Your task to perform on an android device: open app "WhatsApp Messenger" (install if not already installed) Image 0: 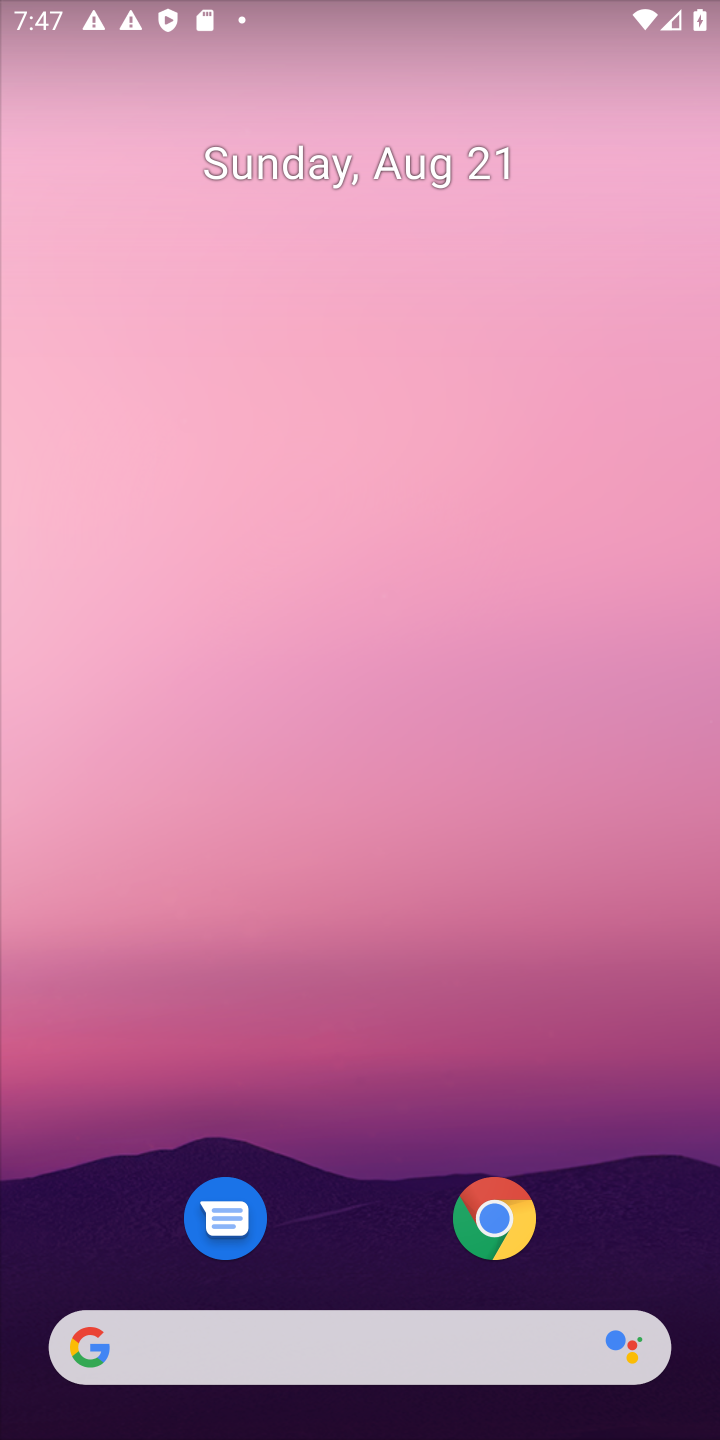
Step 0: drag from (404, 1287) to (370, 364)
Your task to perform on an android device: open app "WhatsApp Messenger" (install if not already installed) Image 1: 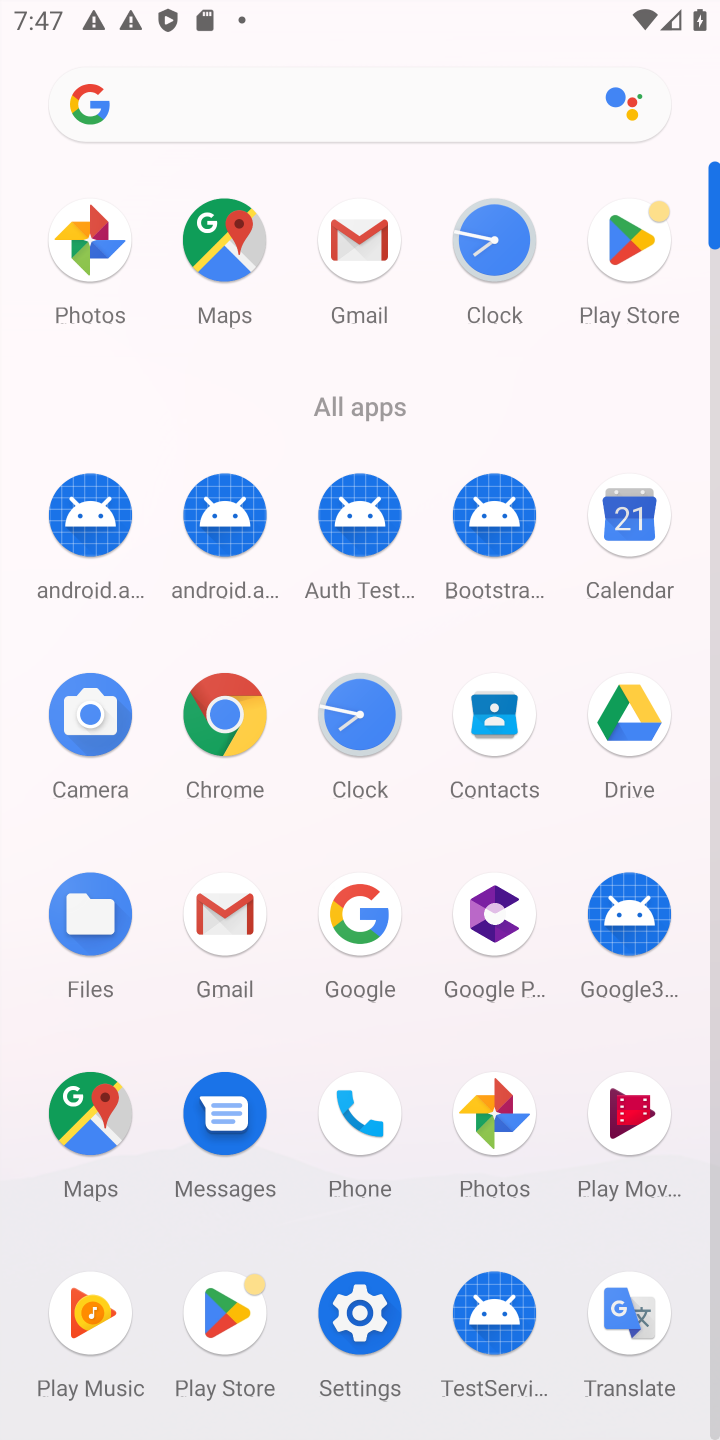
Step 1: click (668, 262)
Your task to perform on an android device: open app "WhatsApp Messenger" (install if not already installed) Image 2: 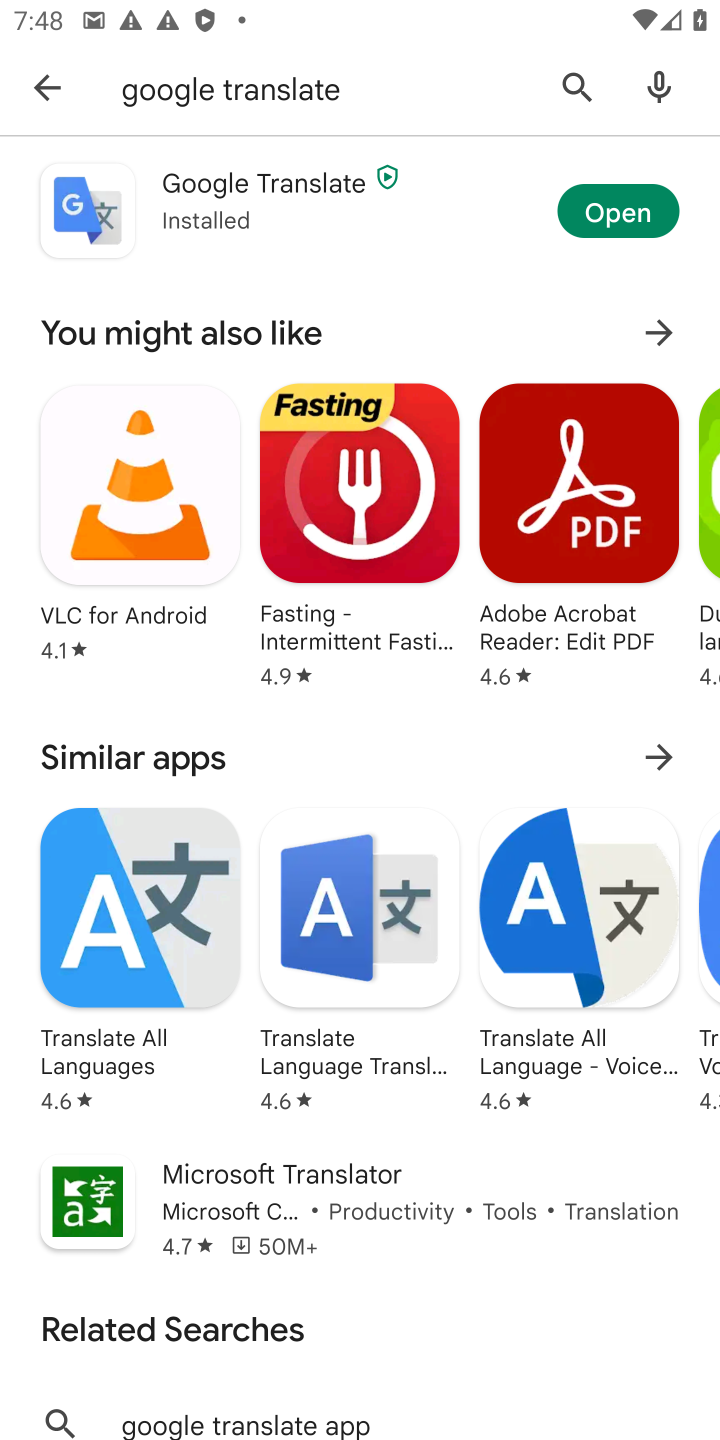
Step 2: click (53, 98)
Your task to perform on an android device: open app "WhatsApp Messenger" (install if not already installed) Image 3: 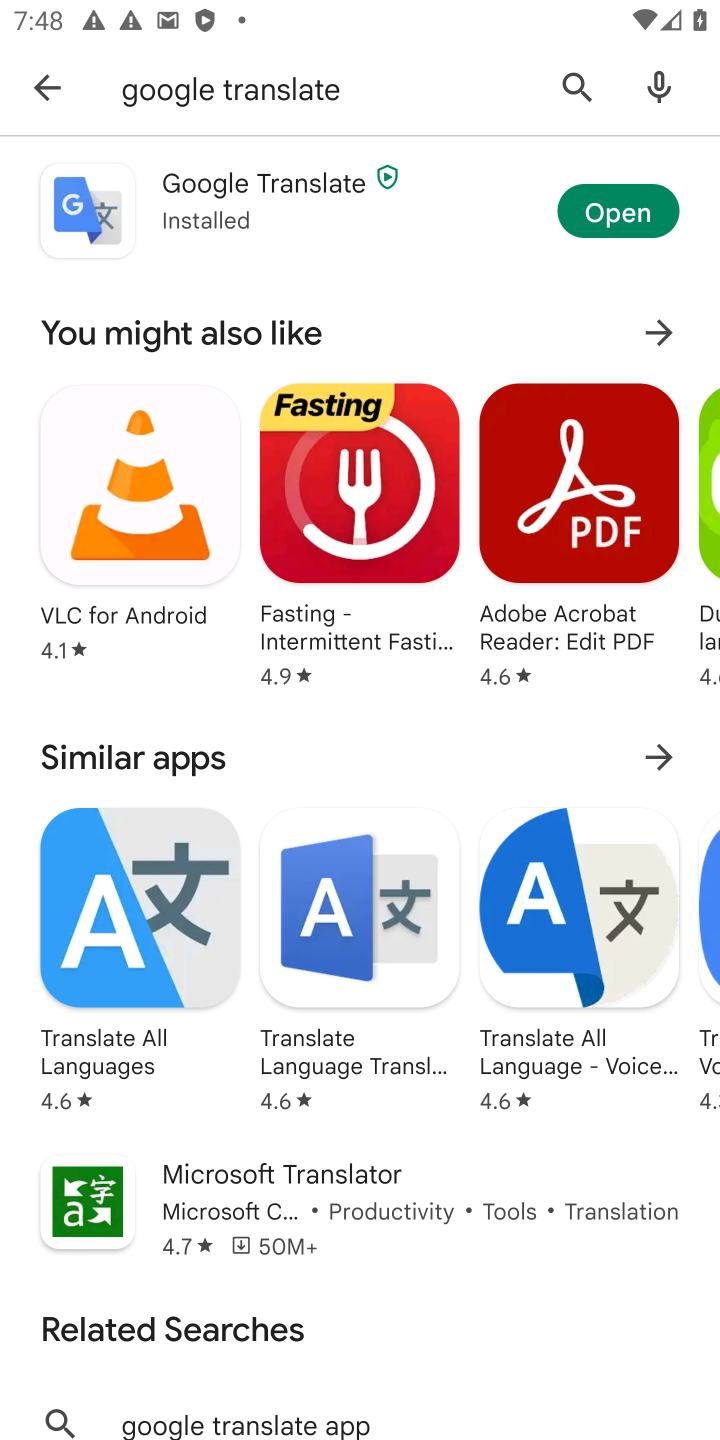
Step 3: click (46, 93)
Your task to perform on an android device: open app "WhatsApp Messenger" (install if not already installed) Image 4: 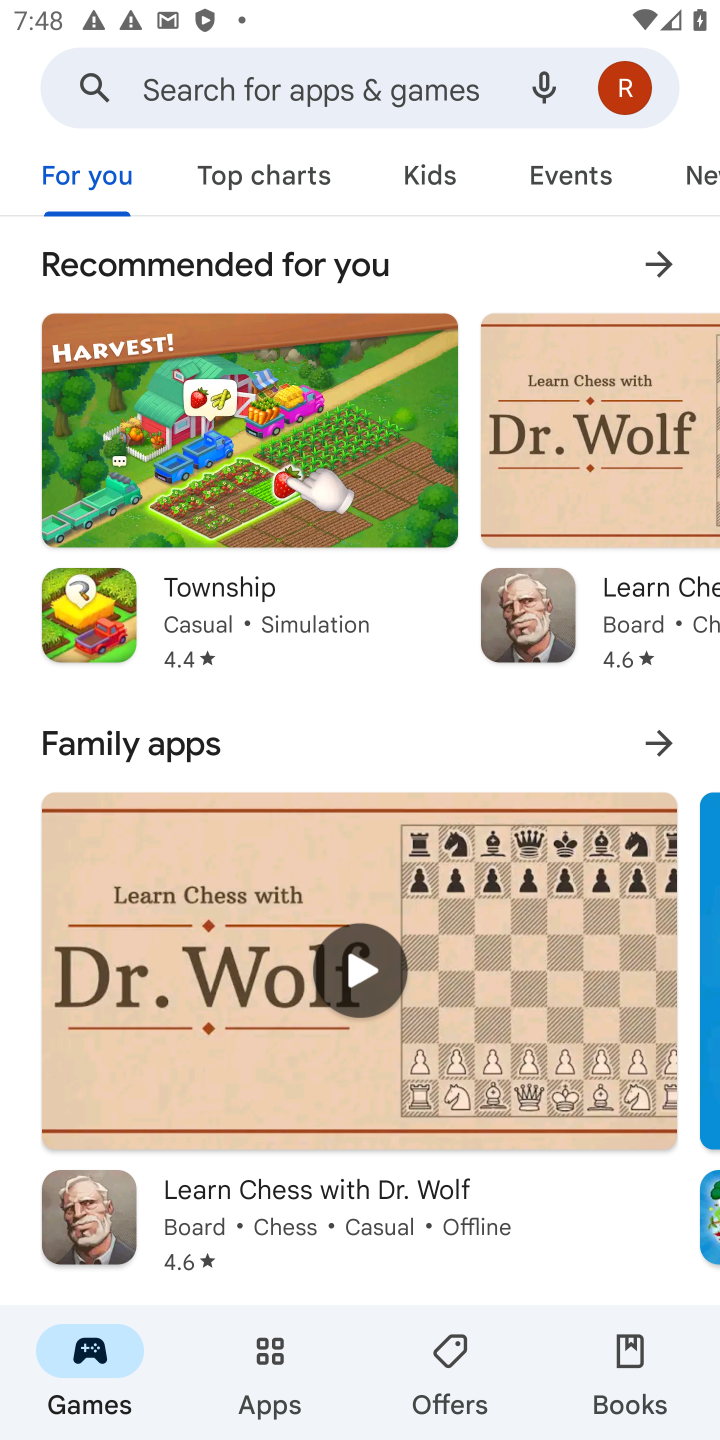
Step 4: click (417, 105)
Your task to perform on an android device: open app "WhatsApp Messenger" (install if not already installed) Image 5: 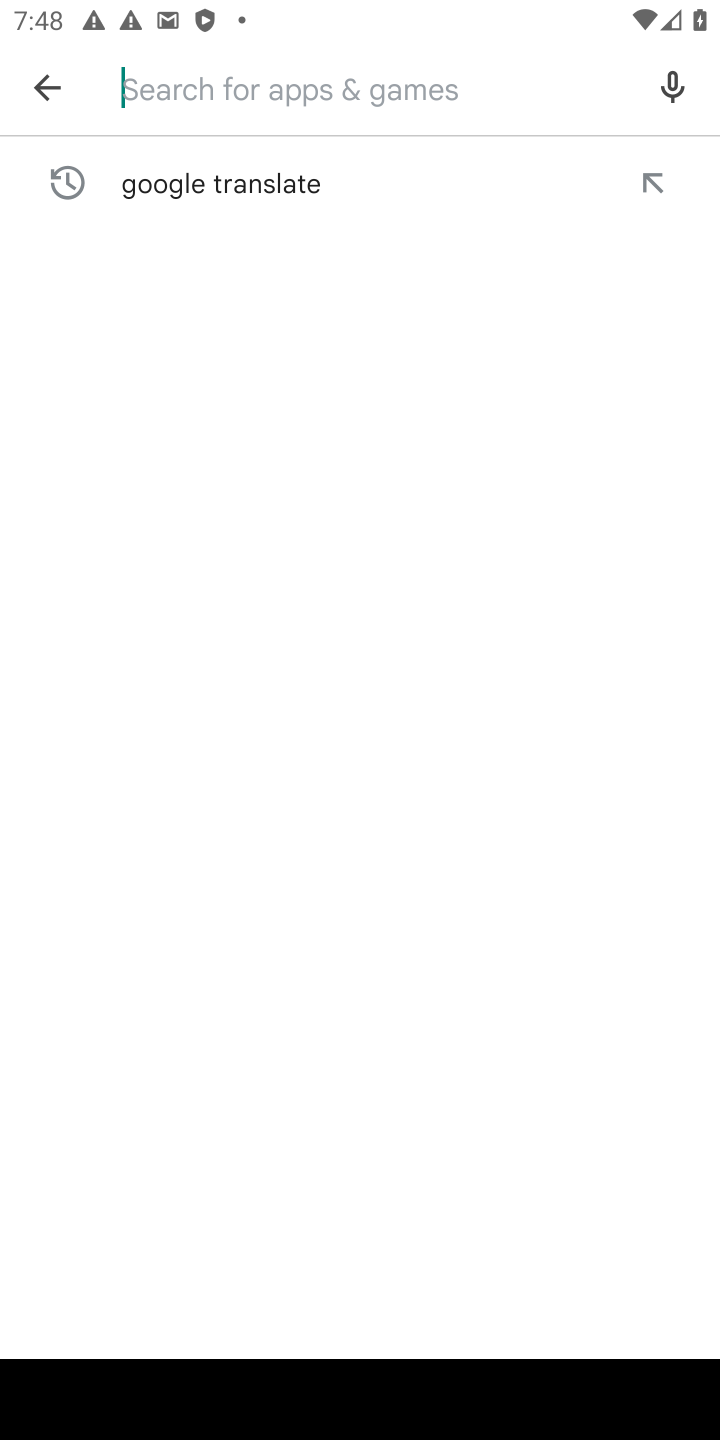
Step 5: type "WhatsApp Messenger"
Your task to perform on an android device: open app "WhatsApp Messenger" (install if not already installed) Image 6: 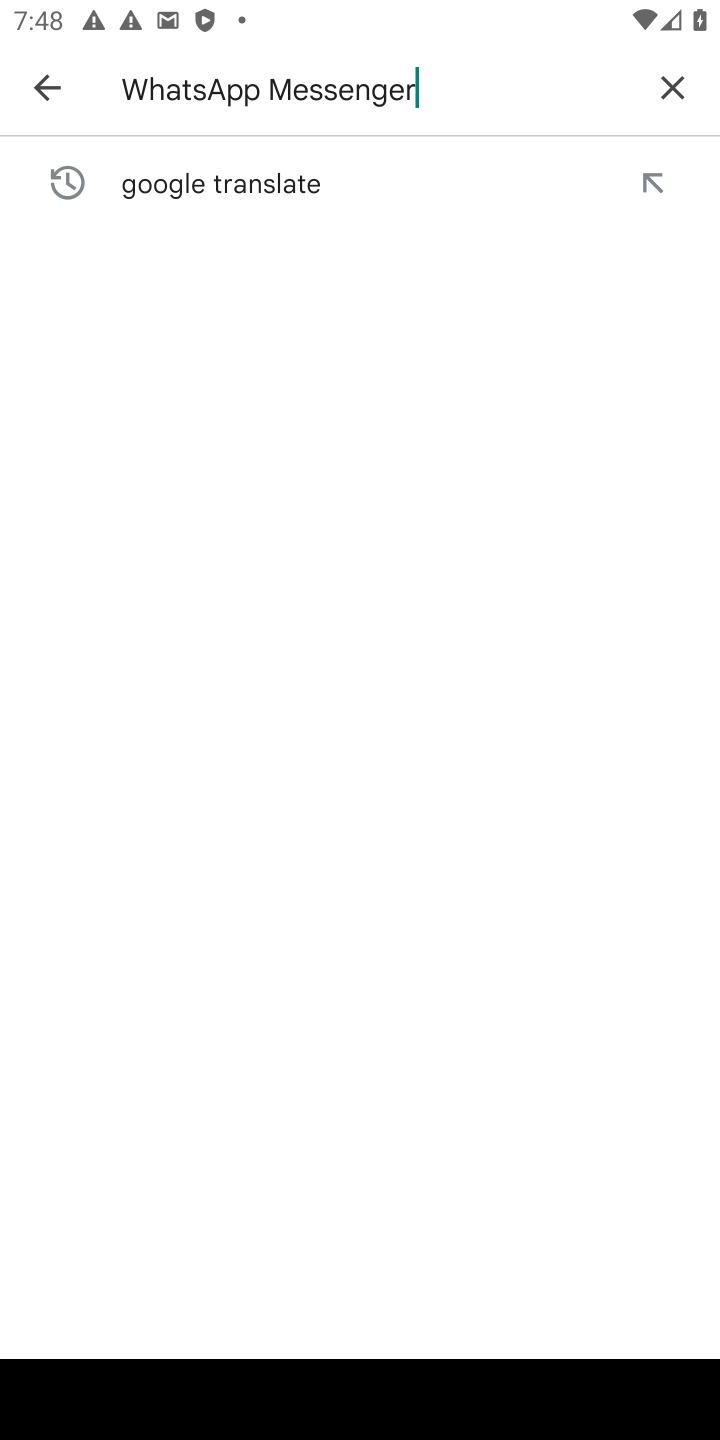
Step 6: type ""
Your task to perform on an android device: open app "WhatsApp Messenger" (install if not already installed) Image 7: 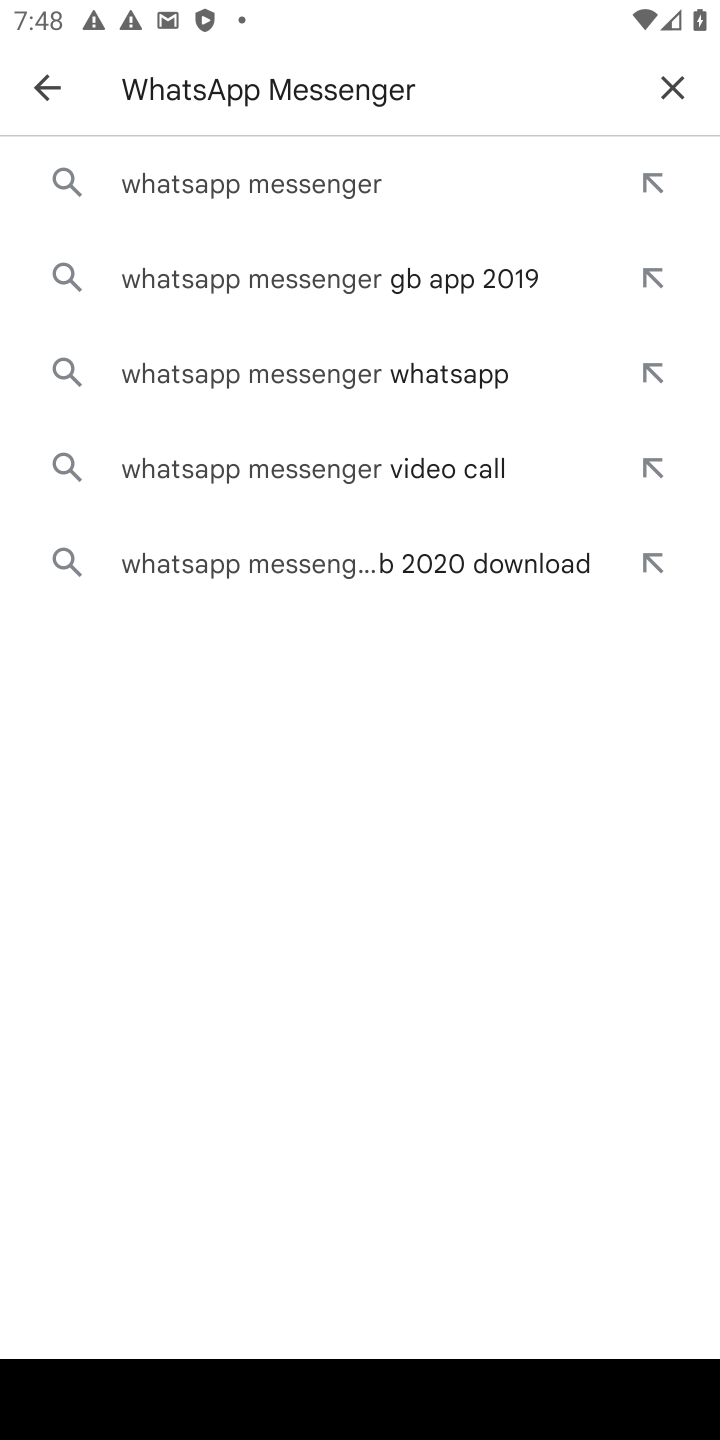
Step 7: click (439, 187)
Your task to perform on an android device: open app "WhatsApp Messenger" (install if not already installed) Image 8: 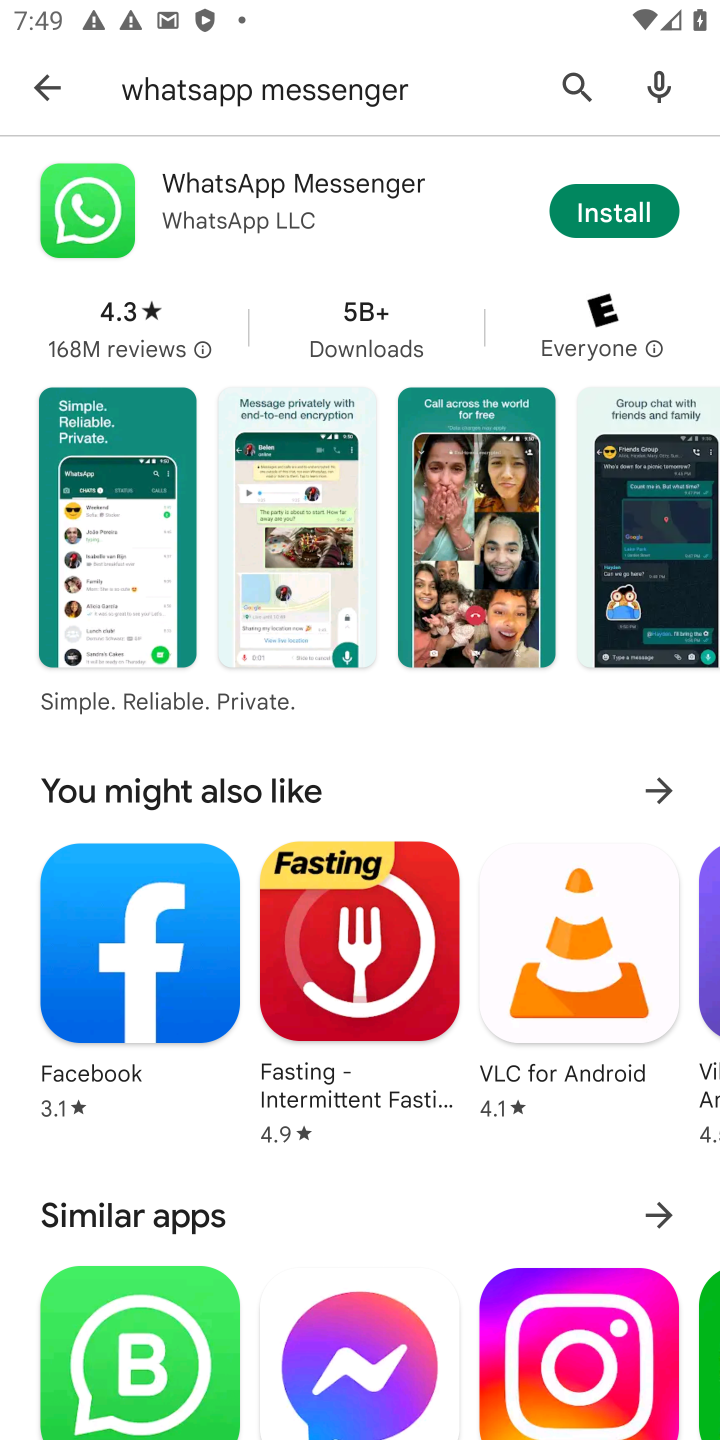
Step 8: click (628, 204)
Your task to perform on an android device: open app "WhatsApp Messenger" (install if not already installed) Image 9: 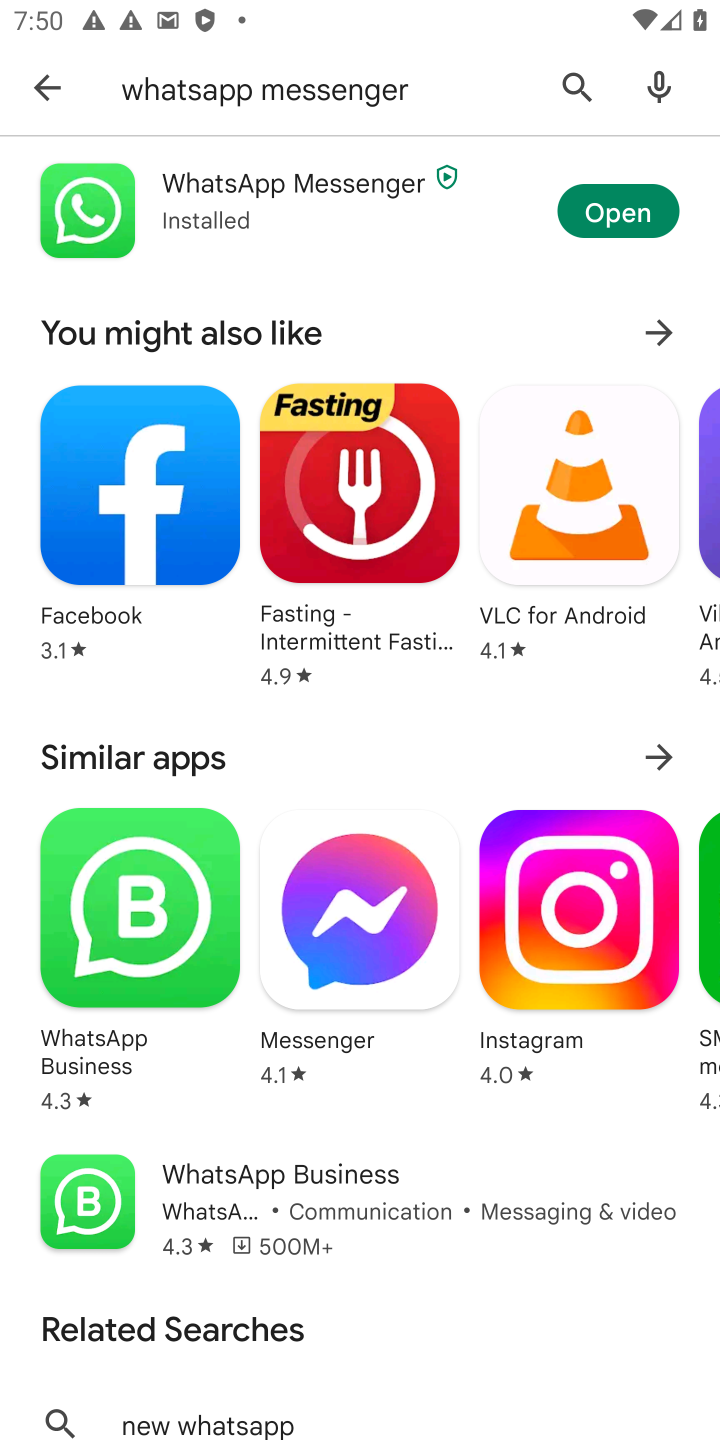
Step 9: click (640, 198)
Your task to perform on an android device: open app "WhatsApp Messenger" (install if not already installed) Image 10: 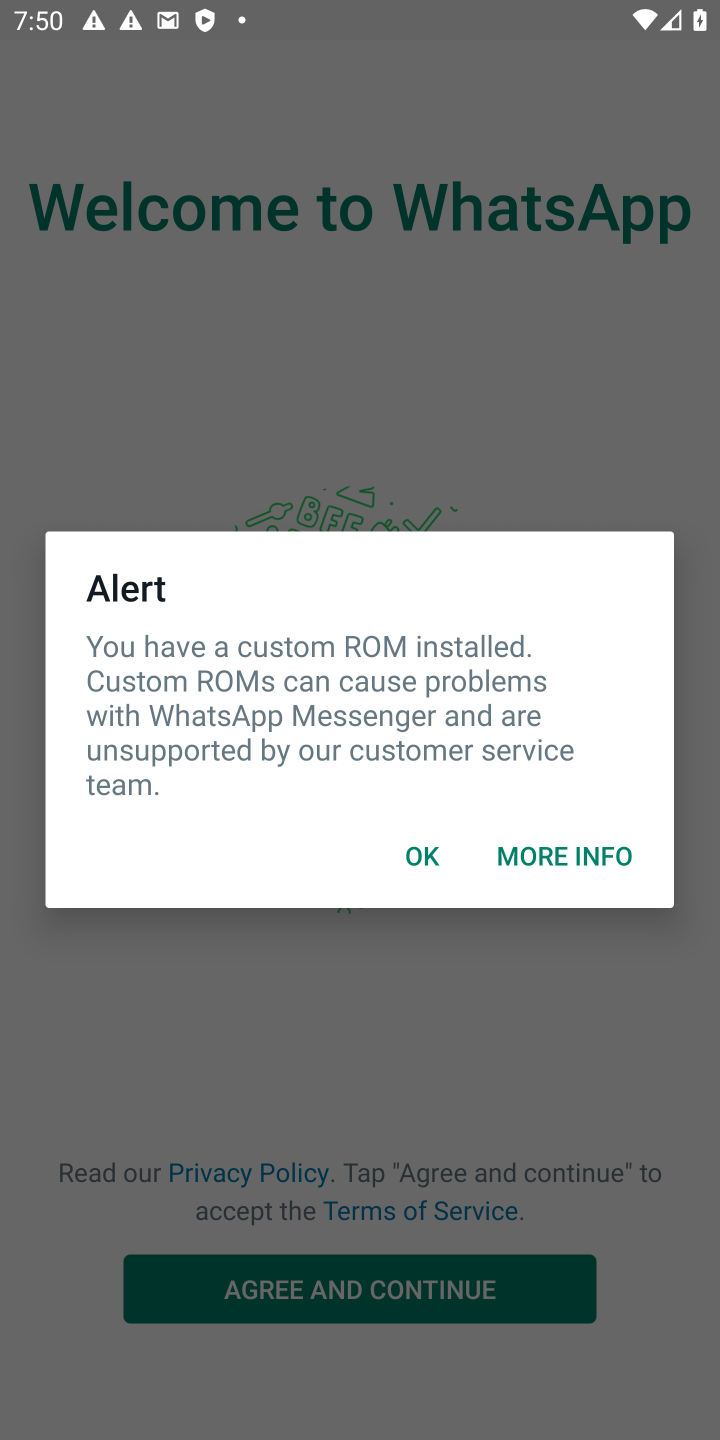
Step 10: task complete